Your task to perform on an android device: check battery use Image 0: 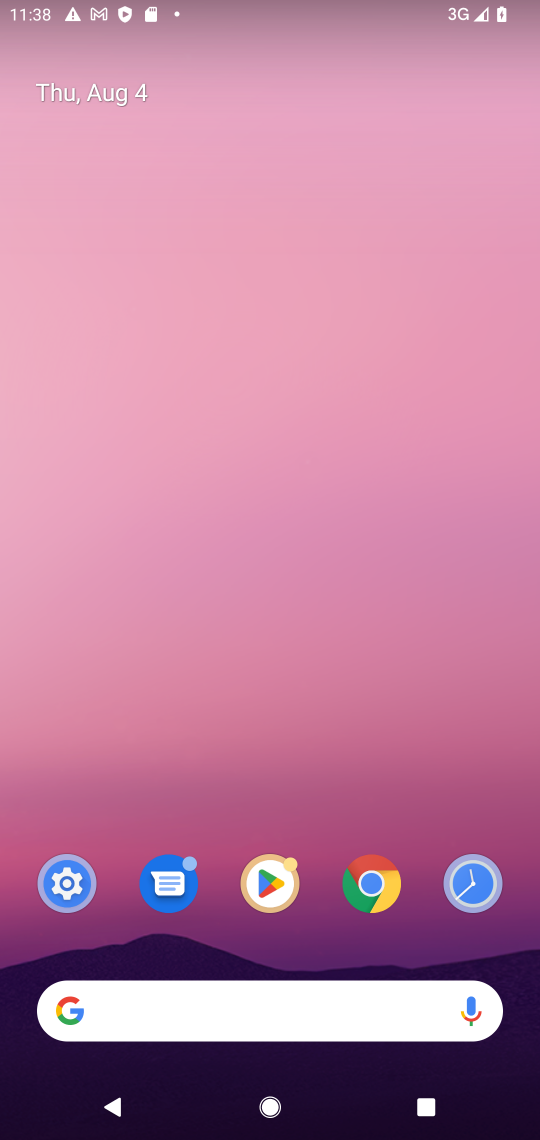
Step 0: drag from (239, 945) to (329, 137)
Your task to perform on an android device: check battery use Image 1: 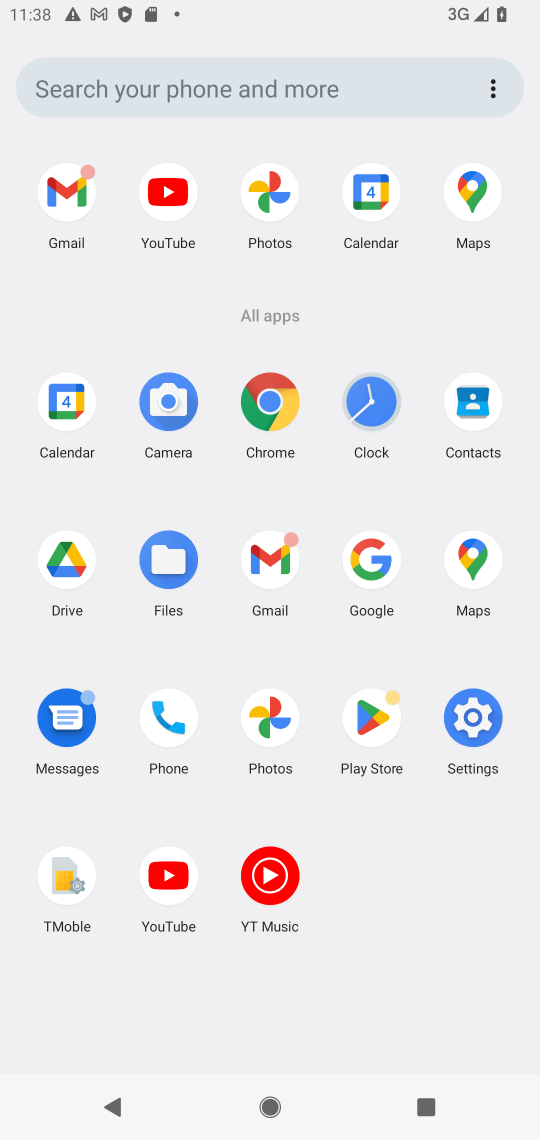
Step 1: click (470, 698)
Your task to perform on an android device: check battery use Image 2: 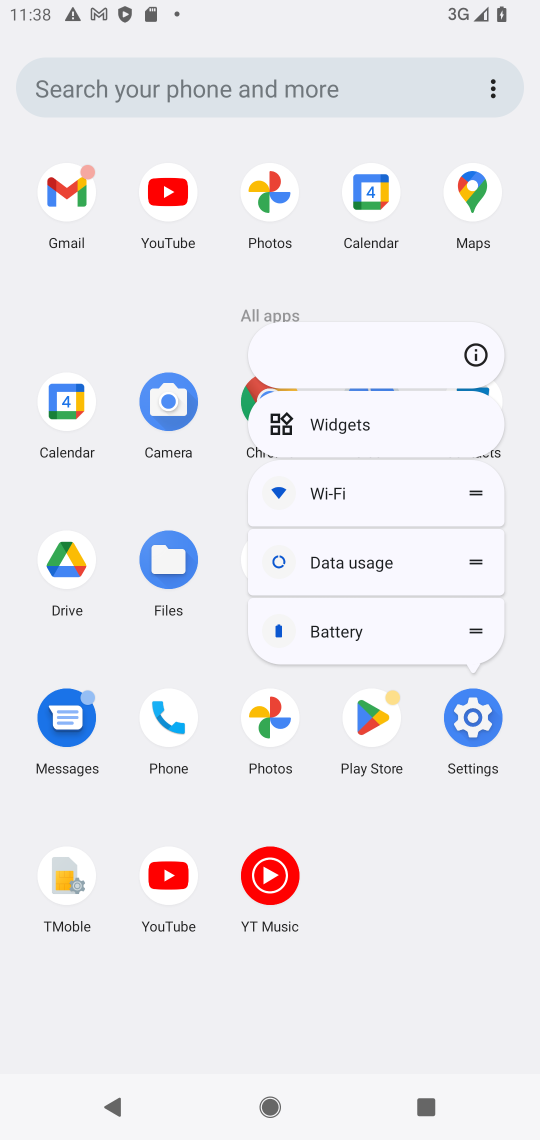
Step 2: click (474, 334)
Your task to perform on an android device: check battery use Image 3: 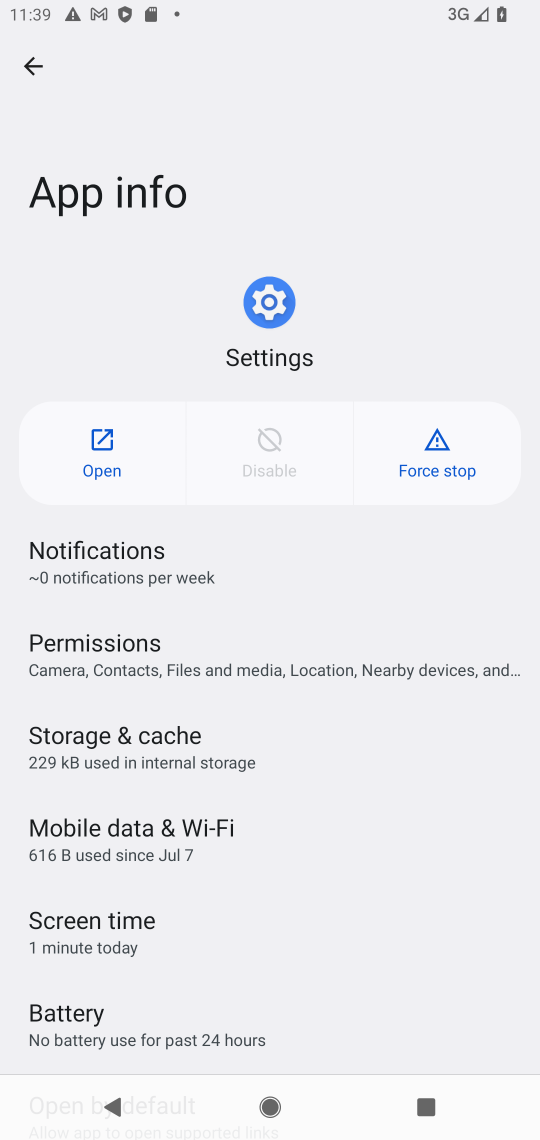
Step 3: click (94, 440)
Your task to perform on an android device: check battery use Image 4: 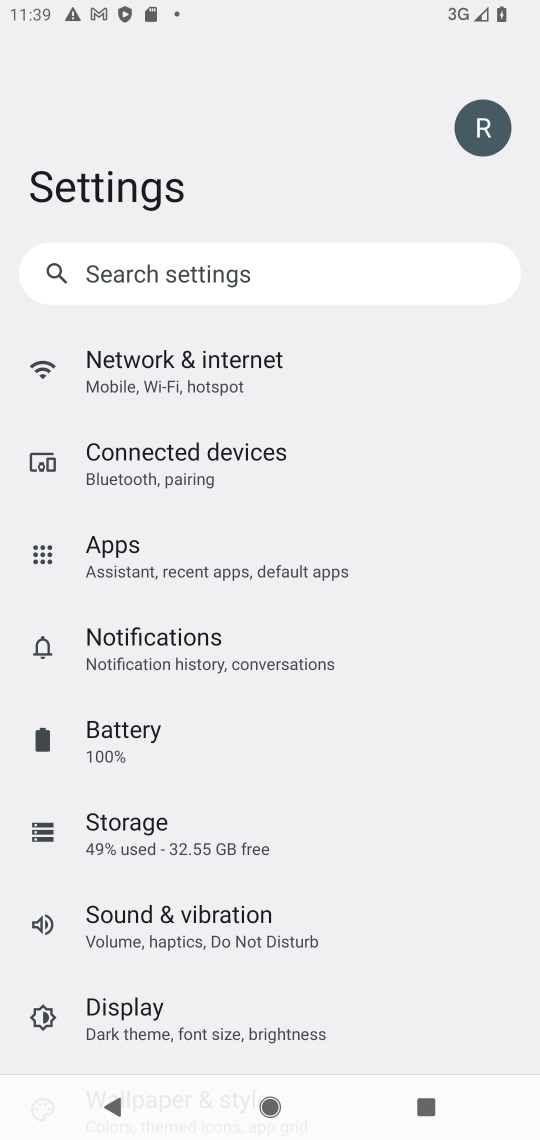
Step 4: drag from (284, 935) to (300, 445)
Your task to perform on an android device: check battery use Image 5: 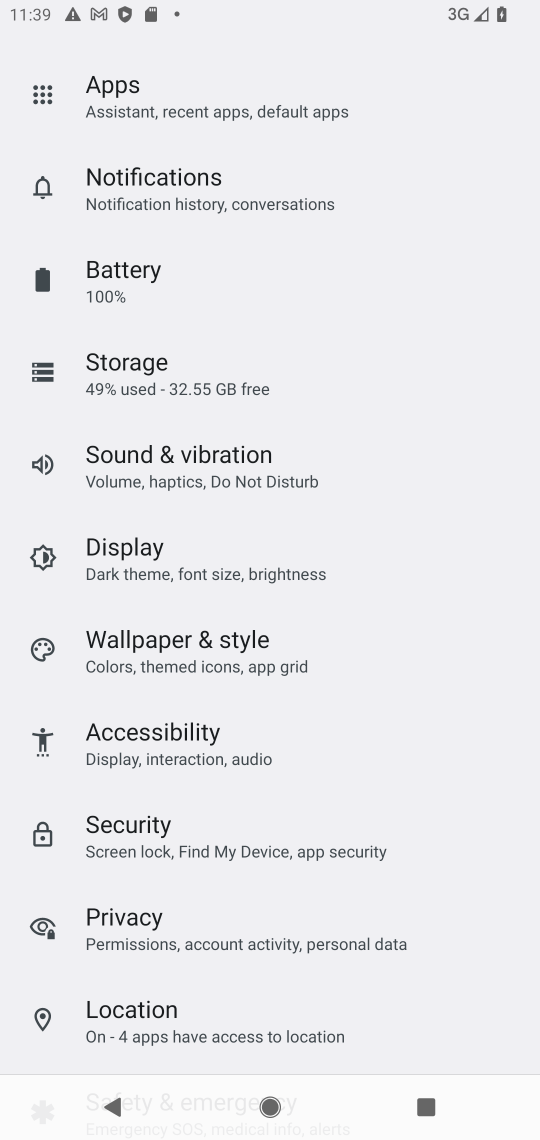
Step 5: click (145, 275)
Your task to perform on an android device: check battery use Image 6: 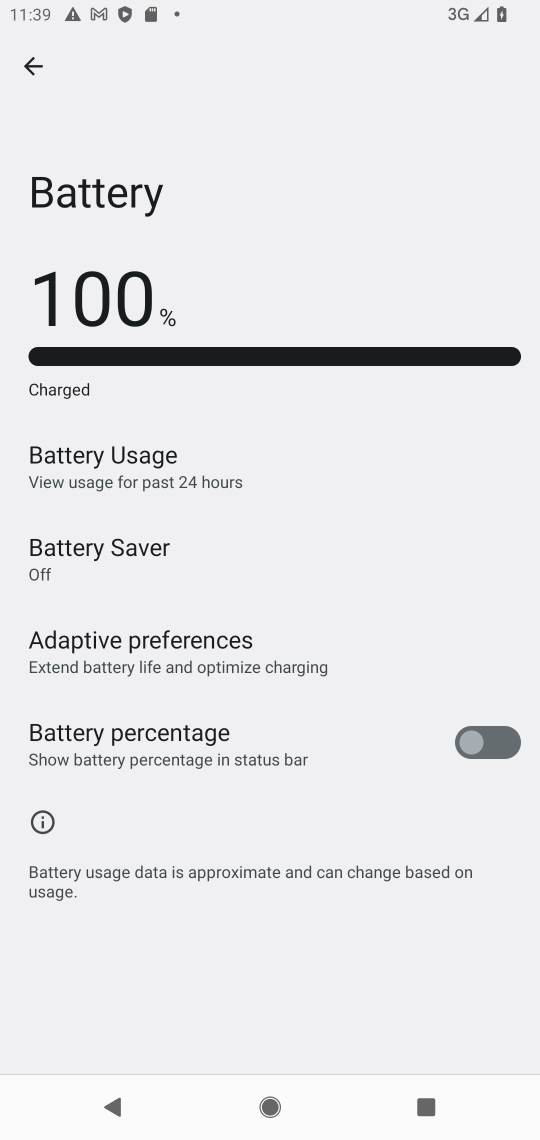
Step 6: drag from (278, 777) to (525, 1137)
Your task to perform on an android device: check battery use Image 7: 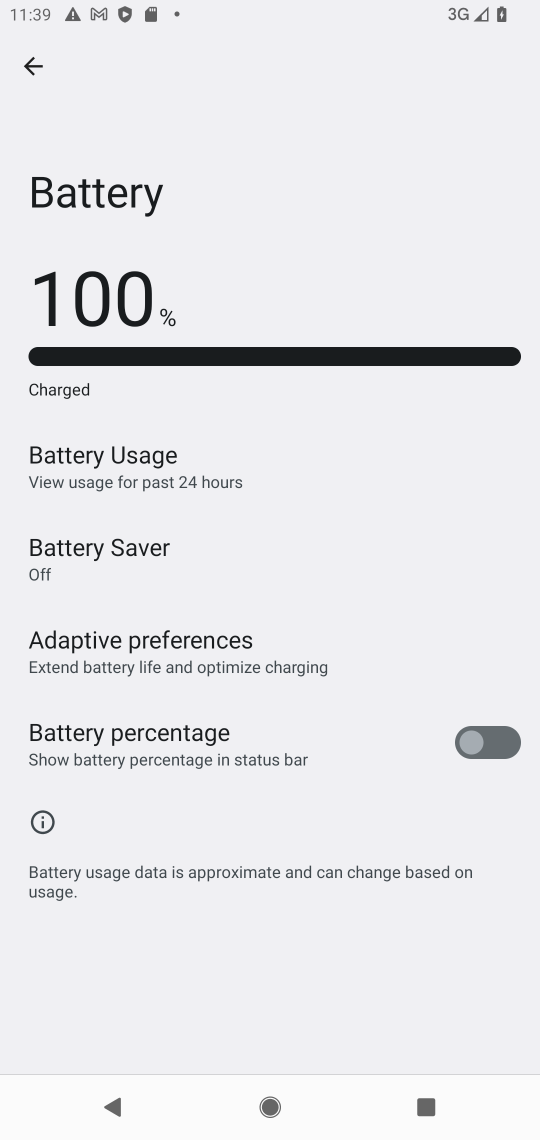
Step 7: drag from (263, 433) to (268, 938)
Your task to perform on an android device: check battery use Image 8: 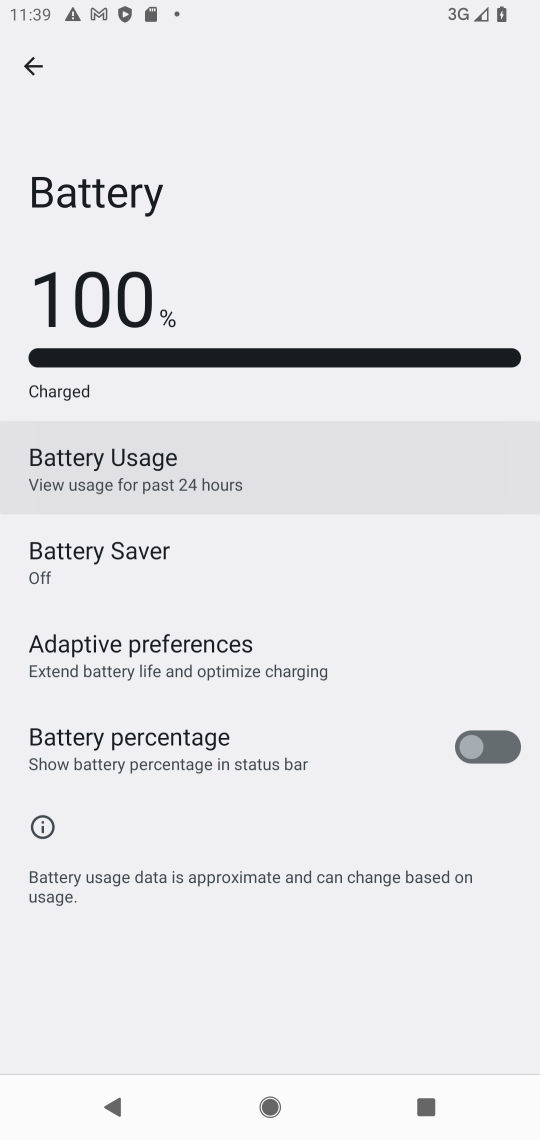
Step 8: click (195, 477)
Your task to perform on an android device: check battery use Image 9: 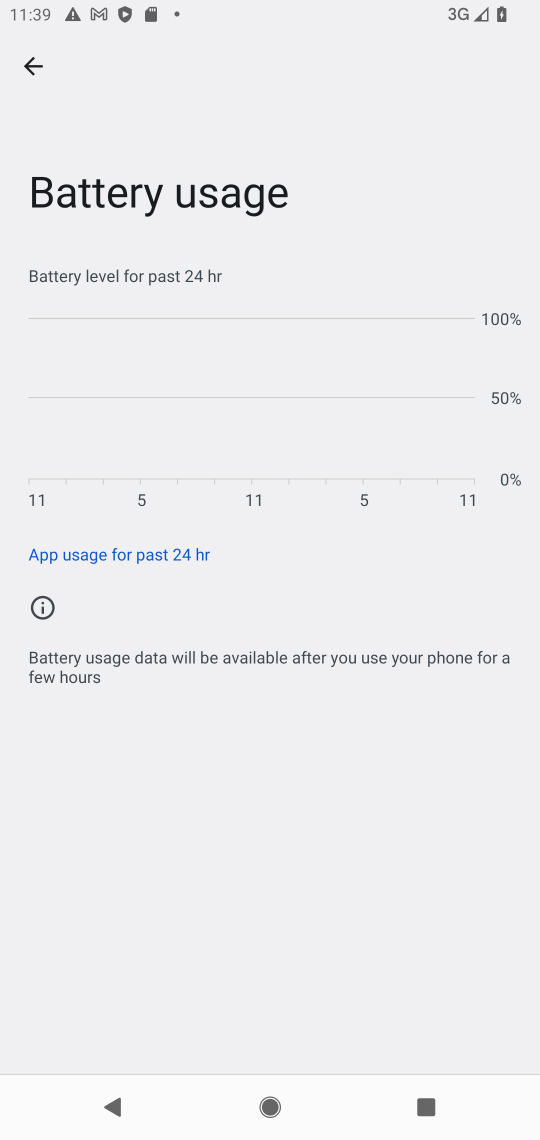
Step 9: task complete